Your task to perform on an android device: What's on my calendar tomorrow? Image 0: 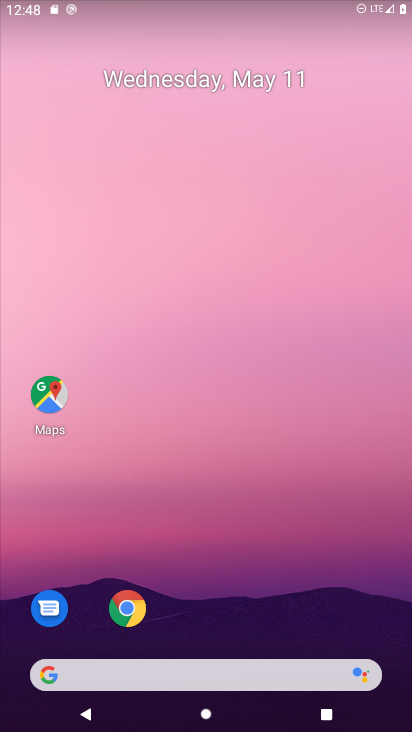
Step 0: drag from (282, 582) to (237, 114)
Your task to perform on an android device: What's on my calendar tomorrow? Image 1: 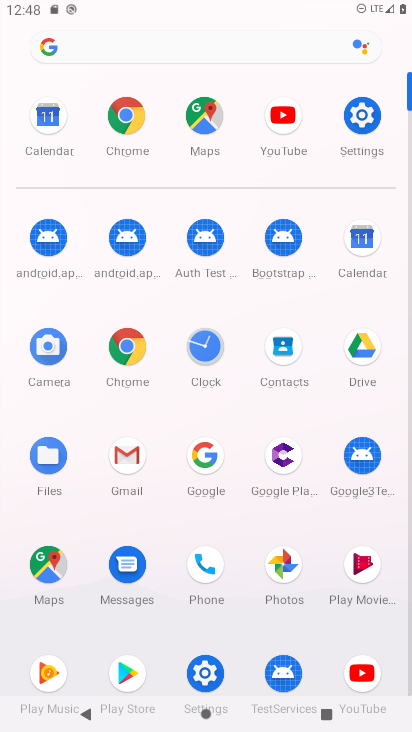
Step 1: click (48, 113)
Your task to perform on an android device: What's on my calendar tomorrow? Image 2: 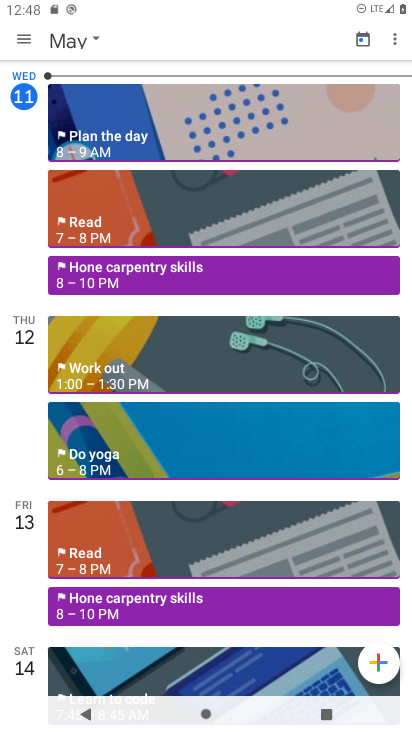
Step 2: task complete